Your task to perform on an android device: Open Yahoo.com Image 0: 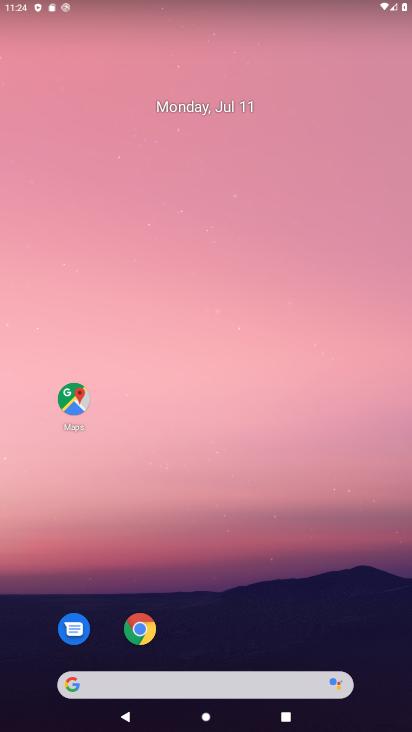
Step 0: press home button
Your task to perform on an android device: Open Yahoo.com Image 1: 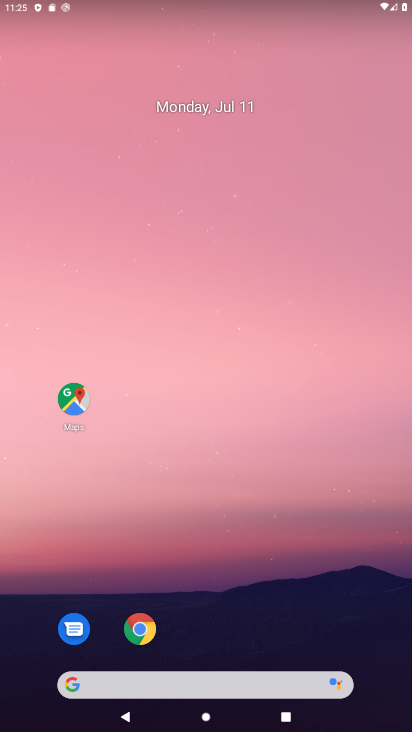
Step 1: click (136, 627)
Your task to perform on an android device: Open Yahoo.com Image 2: 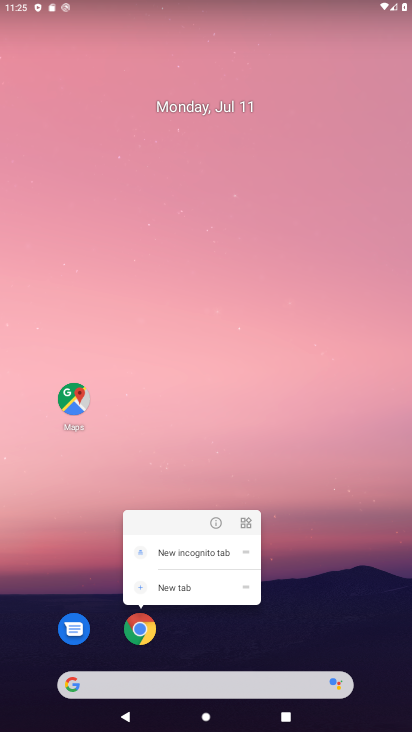
Step 2: click (139, 629)
Your task to perform on an android device: Open Yahoo.com Image 3: 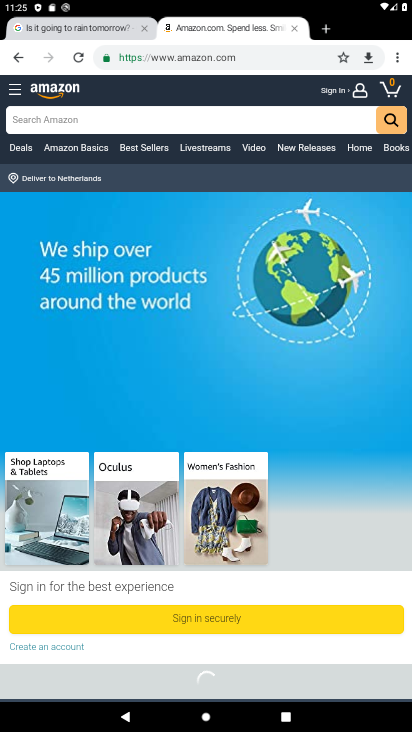
Step 3: click (258, 53)
Your task to perform on an android device: Open Yahoo.com Image 4: 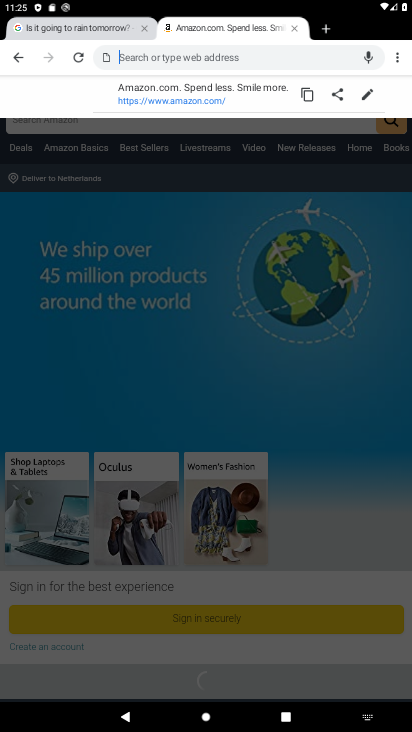
Step 4: type "Yahoo.com"
Your task to perform on an android device: Open Yahoo.com Image 5: 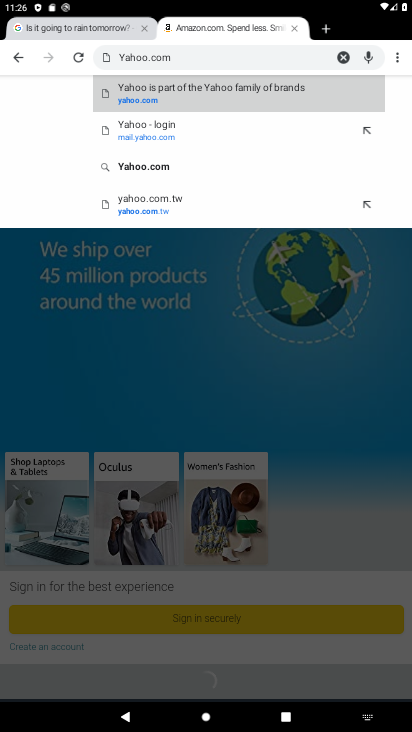
Step 5: click (263, 86)
Your task to perform on an android device: Open Yahoo.com Image 6: 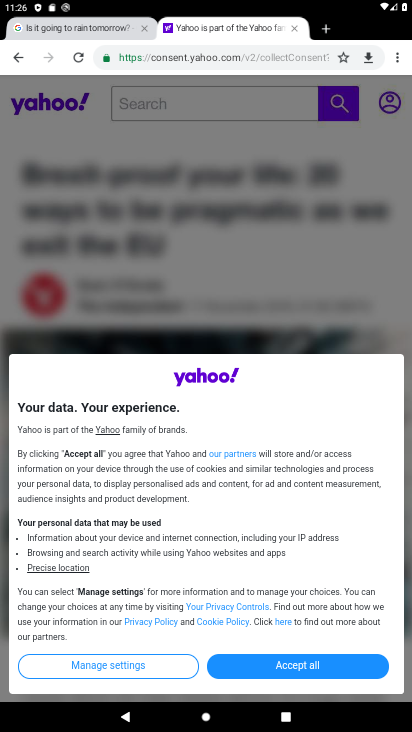
Step 6: task complete